Your task to perform on an android device: change the clock display to digital Image 0: 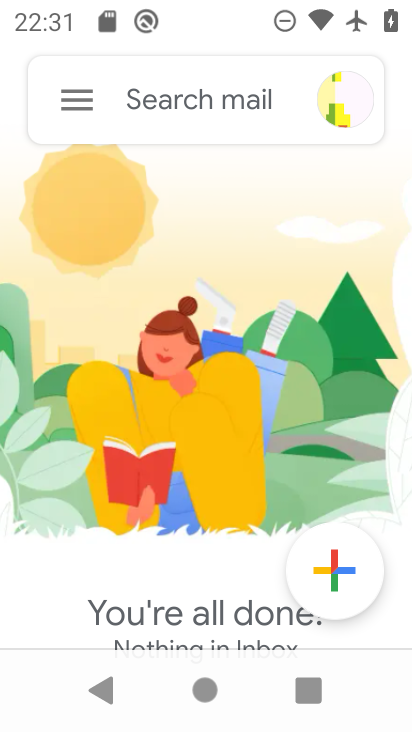
Step 0: press home button
Your task to perform on an android device: change the clock display to digital Image 1: 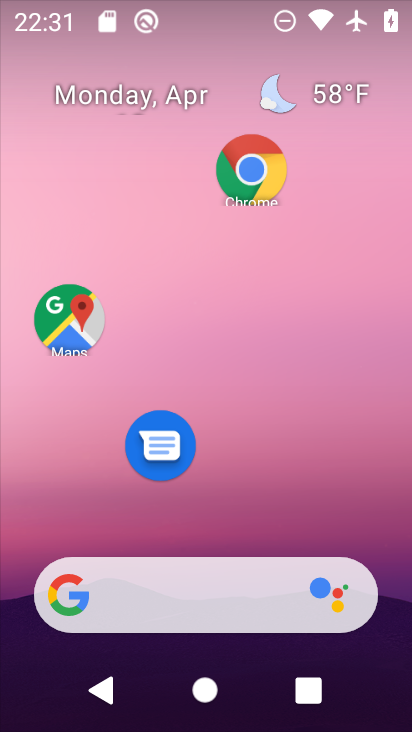
Step 1: drag from (204, 514) to (197, 221)
Your task to perform on an android device: change the clock display to digital Image 2: 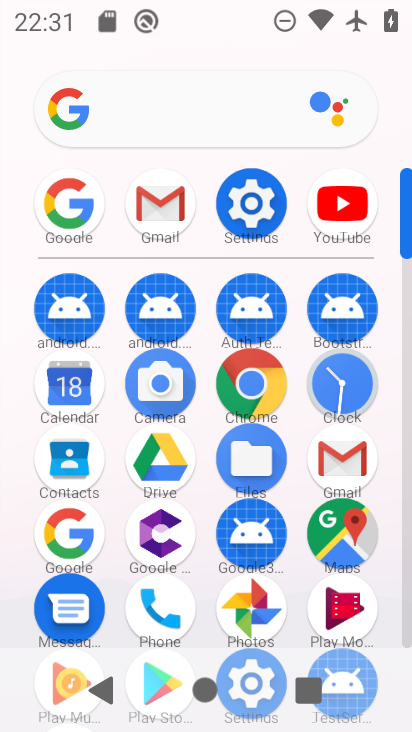
Step 2: click (352, 396)
Your task to perform on an android device: change the clock display to digital Image 3: 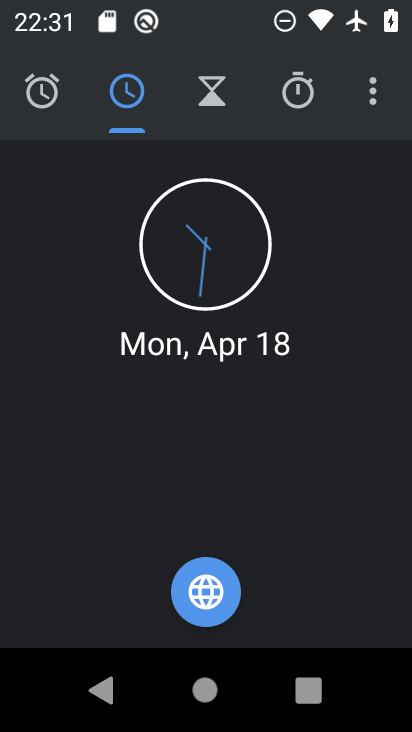
Step 3: click (376, 86)
Your task to perform on an android device: change the clock display to digital Image 4: 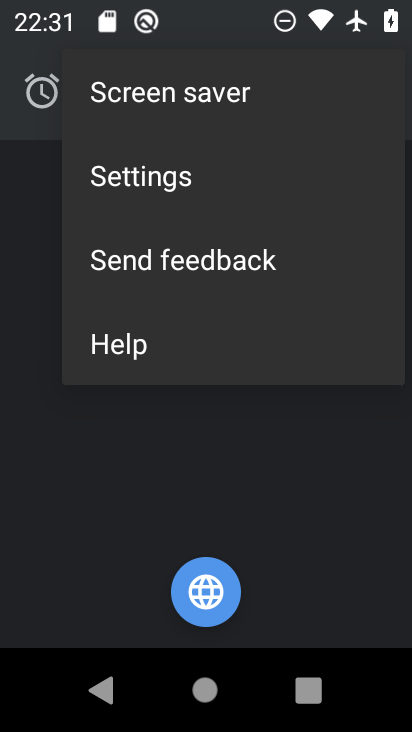
Step 4: click (196, 169)
Your task to perform on an android device: change the clock display to digital Image 5: 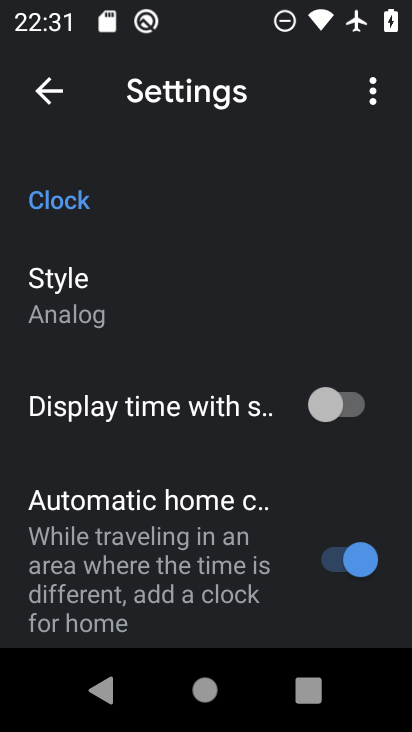
Step 5: click (88, 318)
Your task to perform on an android device: change the clock display to digital Image 6: 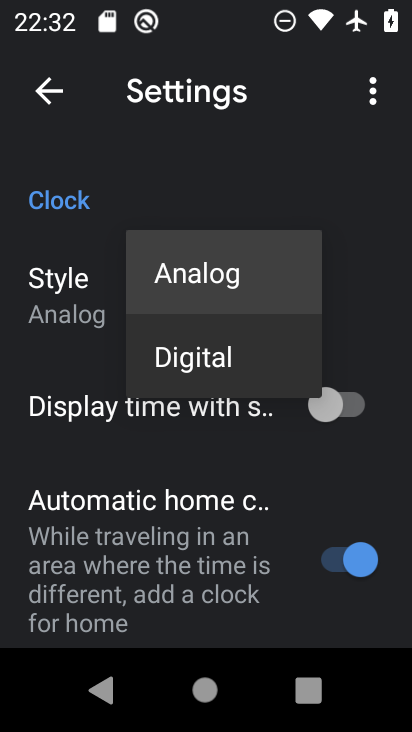
Step 6: click (196, 358)
Your task to perform on an android device: change the clock display to digital Image 7: 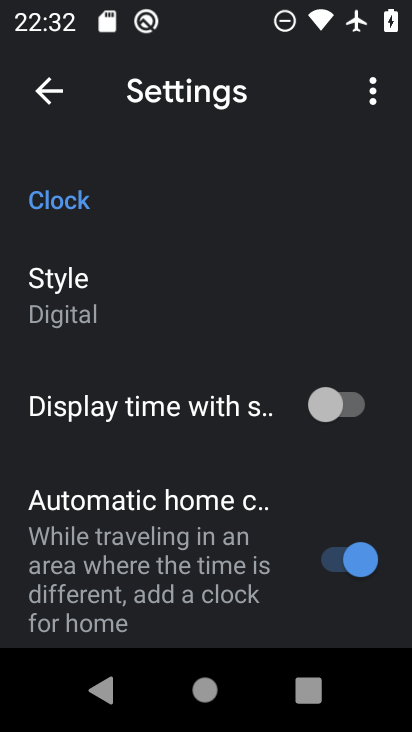
Step 7: task complete